Your task to perform on an android device: Is it going to rain tomorrow? Image 0: 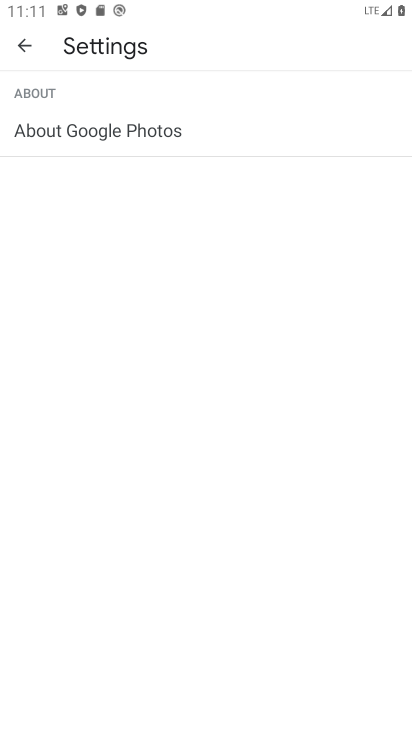
Step 0: press home button
Your task to perform on an android device: Is it going to rain tomorrow? Image 1: 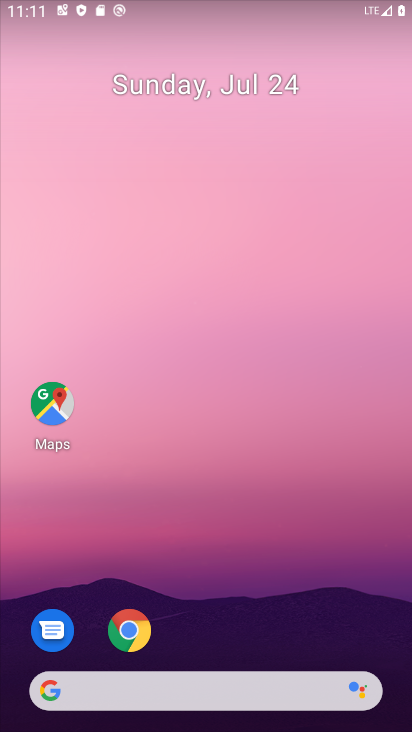
Step 1: drag from (193, 625) to (253, 71)
Your task to perform on an android device: Is it going to rain tomorrow? Image 2: 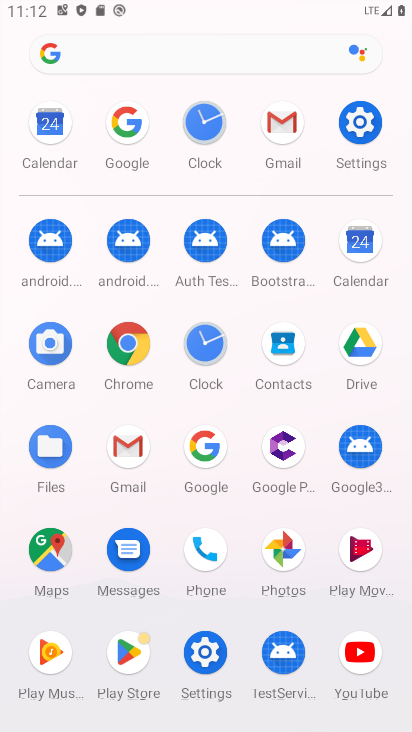
Step 2: click (203, 471)
Your task to perform on an android device: Is it going to rain tomorrow? Image 3: 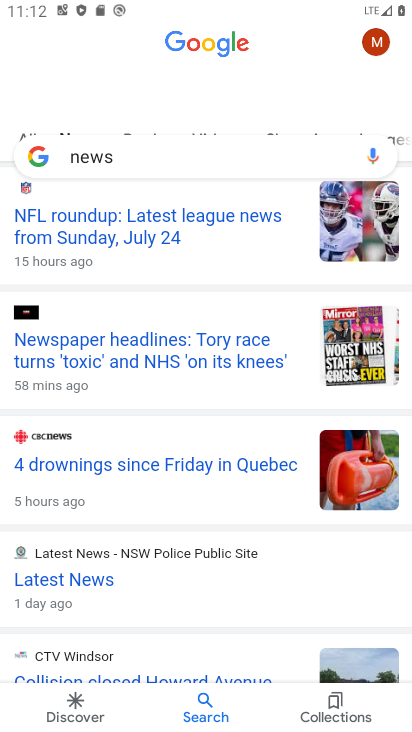
Step 3: click (197, 158)
Your task to perform on an android device: Is it going to rain tomorrow? Image 4: 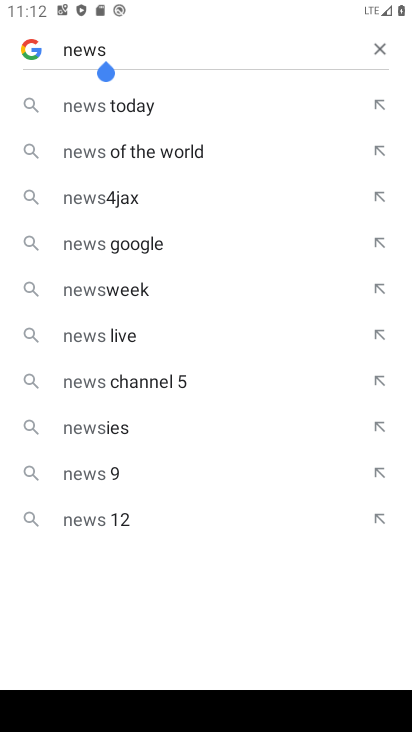
Step 4: click (380, 50)
Your task to perform on an android device: Is it going to rain tomorrow? Image 5: 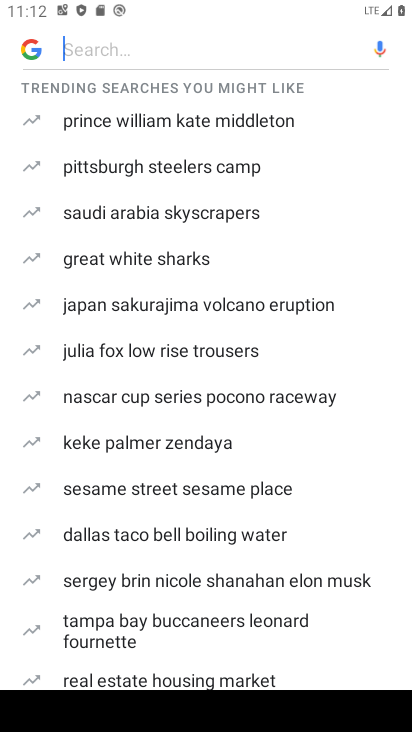
Step 5: type "weather"
Your task to perform on an android device: Is it going to rain tomorrow? Image 6: 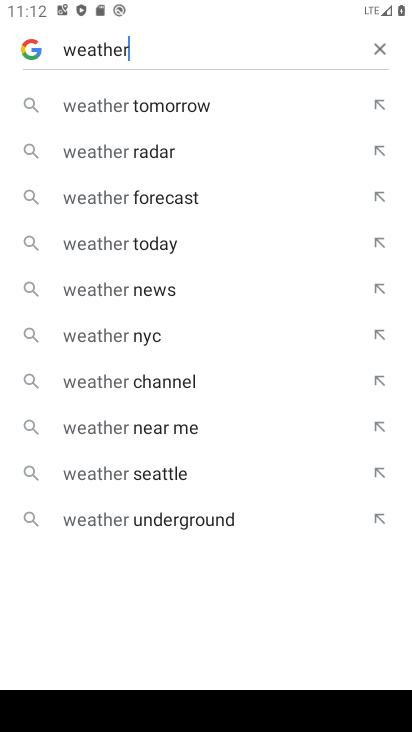
Step 6: click (174, 94)
Your task to perform on an android device: Is it going to rain tomorrow? Image 7: 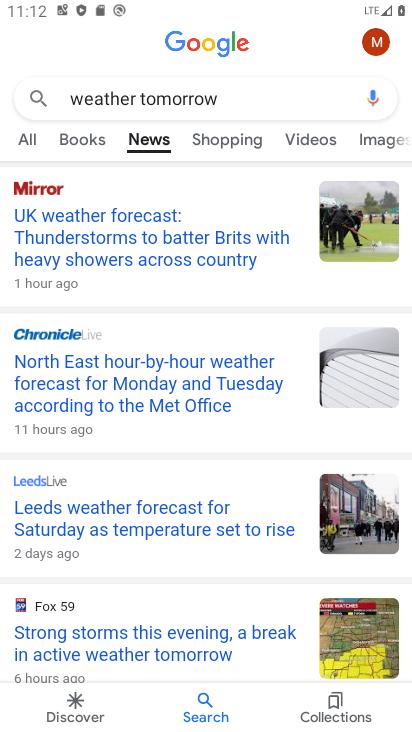
Step 7: click (18, 129)
Your task to perform on an android device: Is it going to rain tomorrow? Image 8: 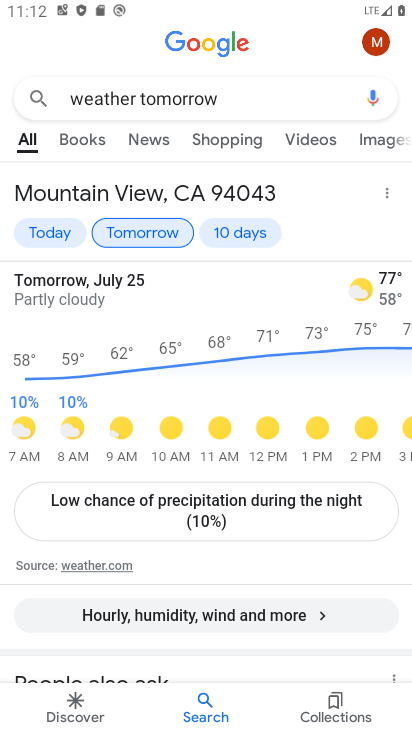
Step 8: task complete